Your task to perform on an android device: Open calendar and show me the first week of next month Image 0: 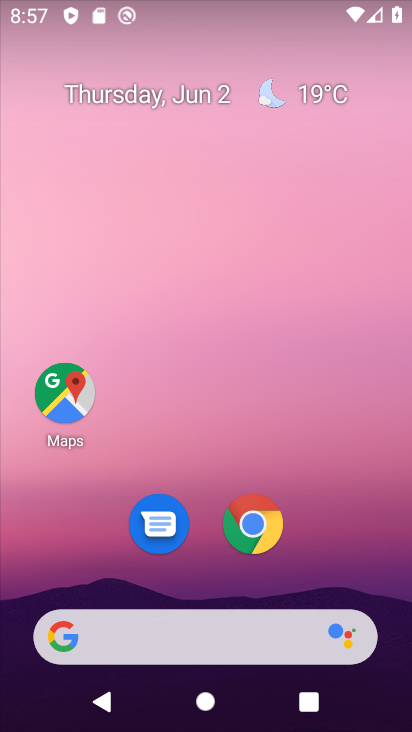
Step 0: drag from (199, 440) to (249, 0)
Your task to perform on an android device: Open calendar and show me the first week of next month Image 1: 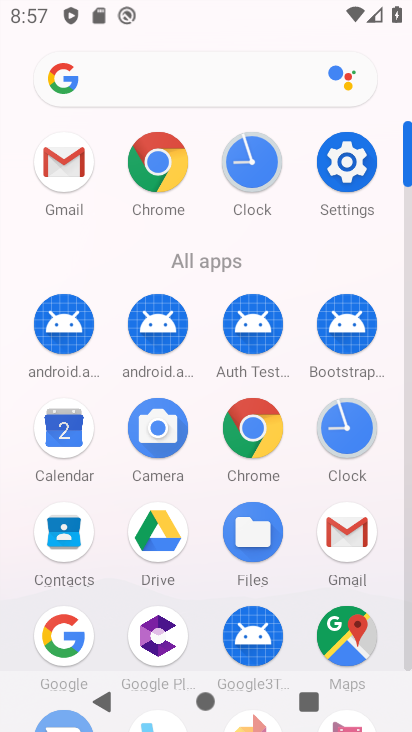
Step 1: click (67, 432)
Your task to perform on an android device: Open calendar and show me the first week of next month Image 2: 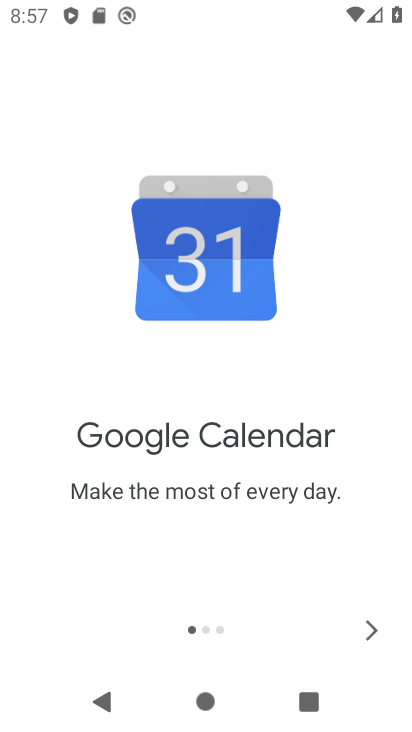
Step 2: click (371, 627)
Your task to perform on an android device: Open calendar and show me the first week of next month Image 3: 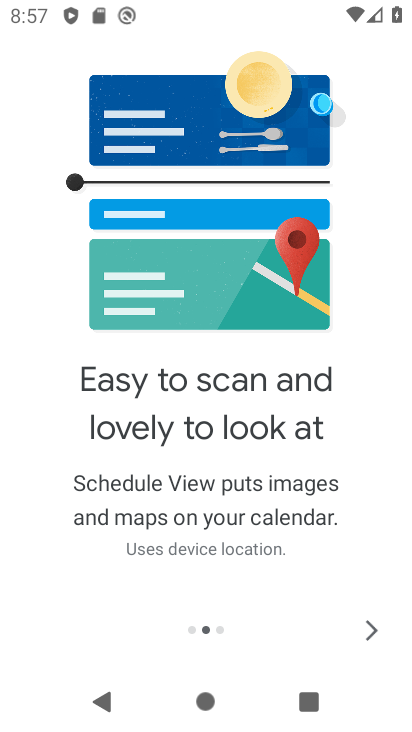
Step 3: click (371, 627)
Your task to perform on an android device: Open calendar and show me the first week of next month Image 4: 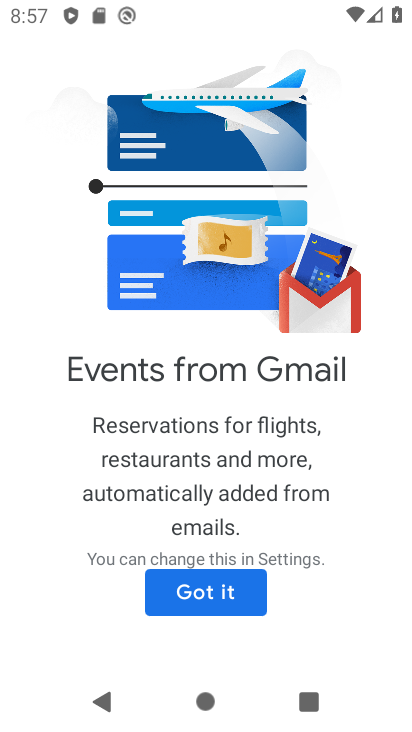
Step 4: click (251, 590)
Your task to perform on an android device: Open calendar and show me the first week of next month Image 5: 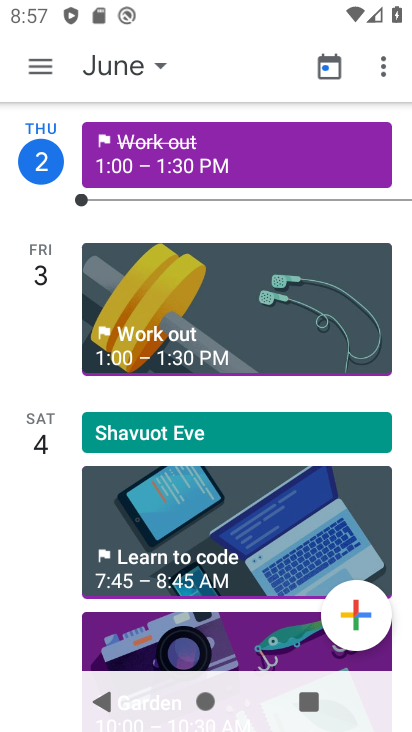
Step 5: click (41, 53)
Your task to perform on an android device: Open calendar and show me the first week of next month Image 6: 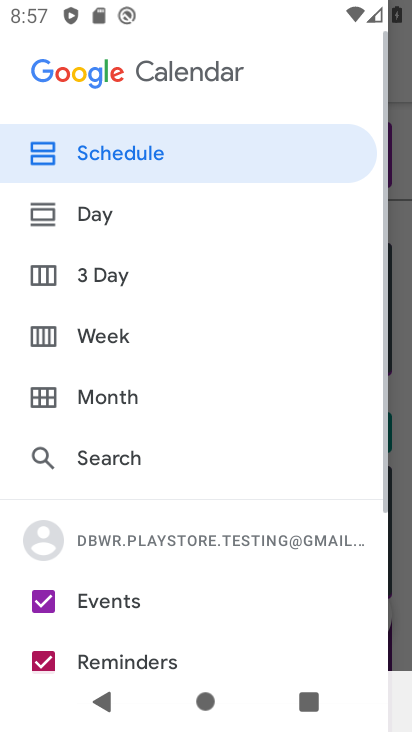
Step 6: click (34, 395)
Your task to perform on an android device: Open calendar and show me the first week of next month Image 7: 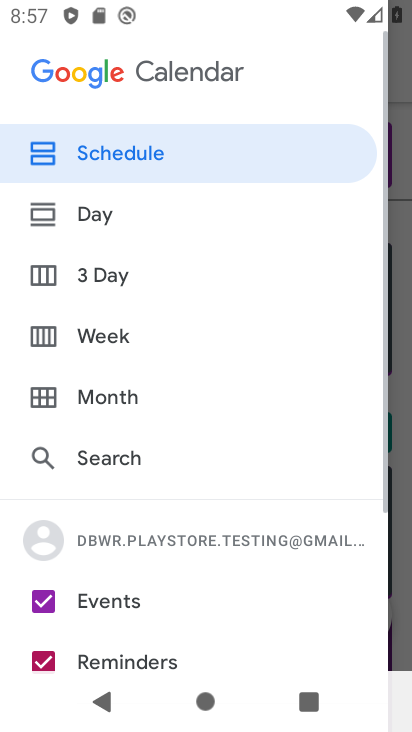
Step 7: click (34, 394)
Your task to perform on an android device: Open calendar and show me the first week of next month Image 8: 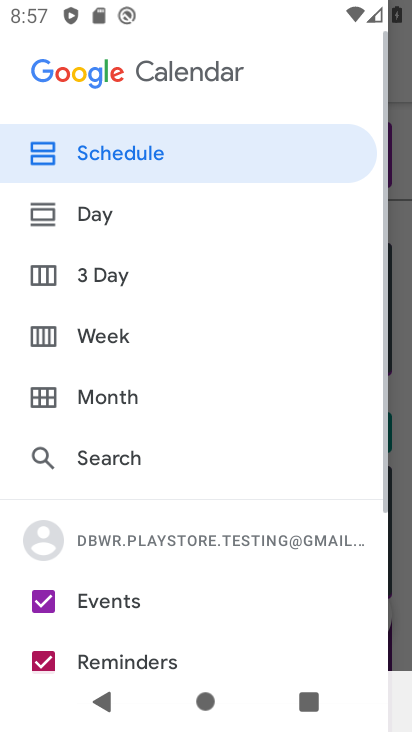
Step 8: click (58, 387)
Your task to perform on an android device: Open calendar and show me the first week of next month Image 9: 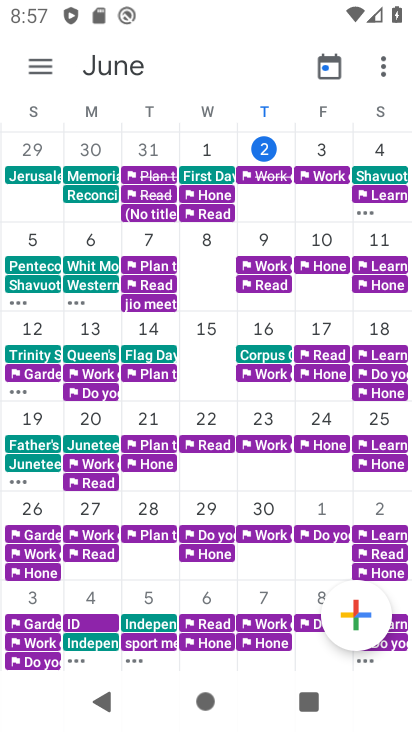
Step 9: drag from (382, 415) to (14, 430)
Your task to perform on an android device: Open calendar and show me the first week of next month Image 10: 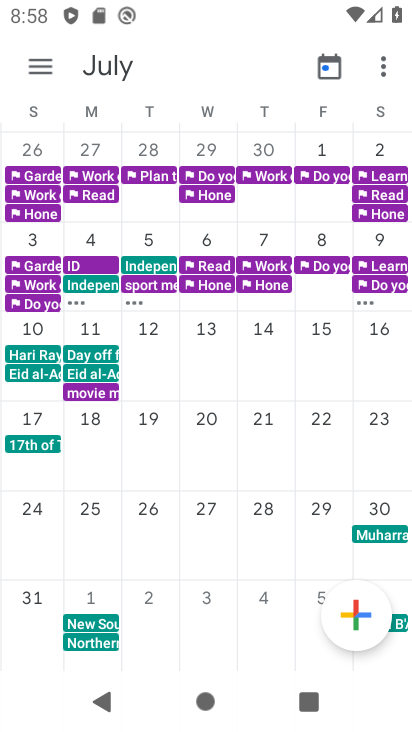
Step 10: click (39, 239)
Your task to perform on an android device: Open calendar and show me the first week of next month Image 11: 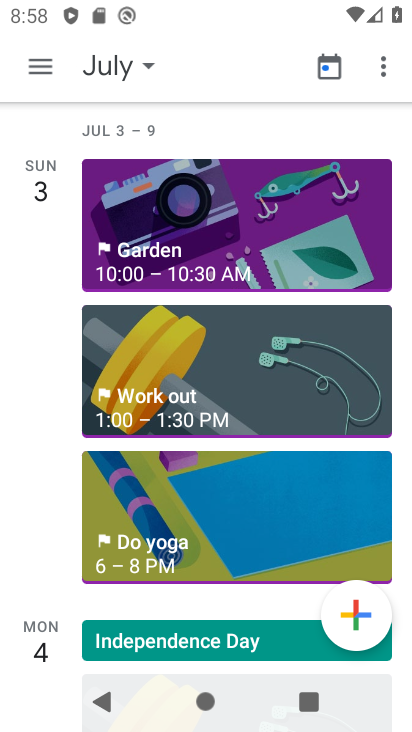
Step 11: click (43, 58)
Your task to perform on an android device: Open calendar and show me the first week of next month Image 12: 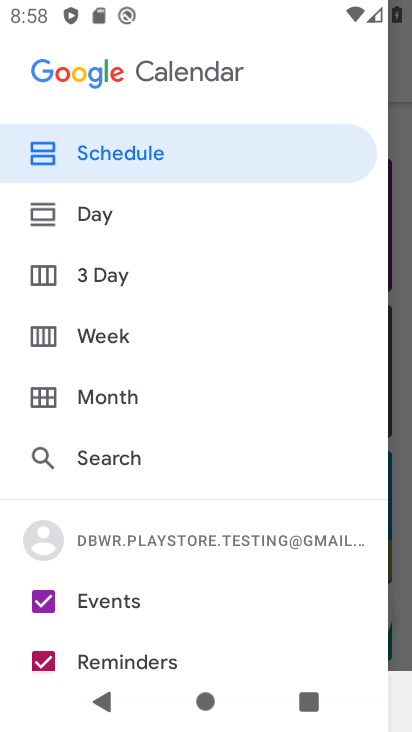
Step 12: click (45, 331)
Your task to perform on an android device: Open calendar and show me the first week of next month Image 13: 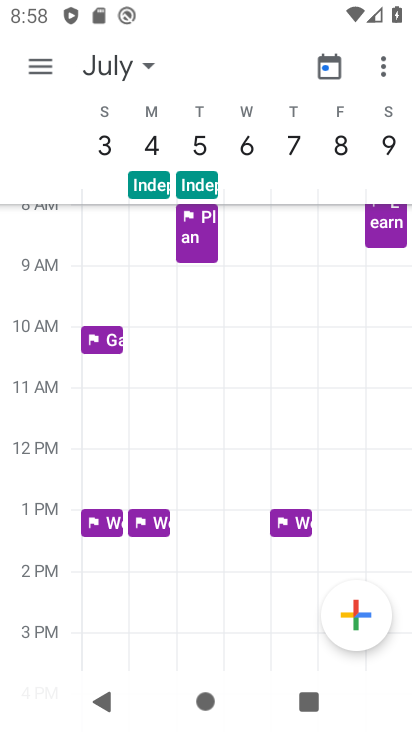
Step 13: task complete